Your task to perform on an android device: toggle notifications settings in the gmail app Image 0: 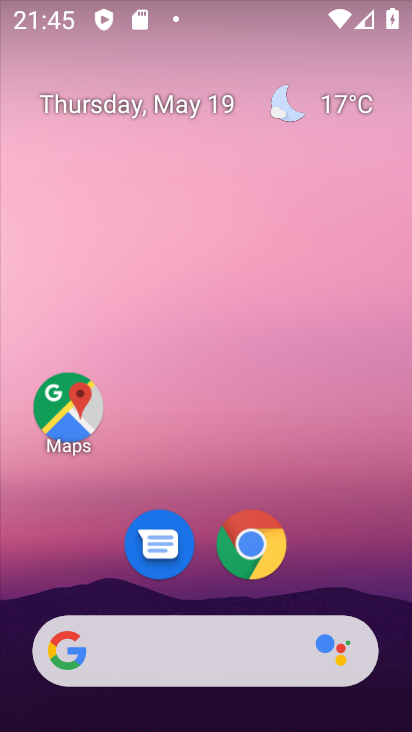
Step 0: drag from (166, 663) to (212, 51)
Your task to perform on an android device: toggle notifications settings in the gmail app Image 1: 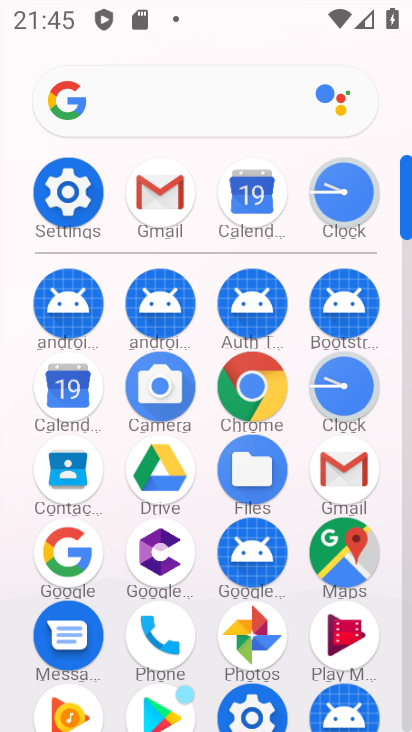
Step 1: click (150, 184)
Your task to perform on an android device: toggle notifications settings in the gmail app Image 2: 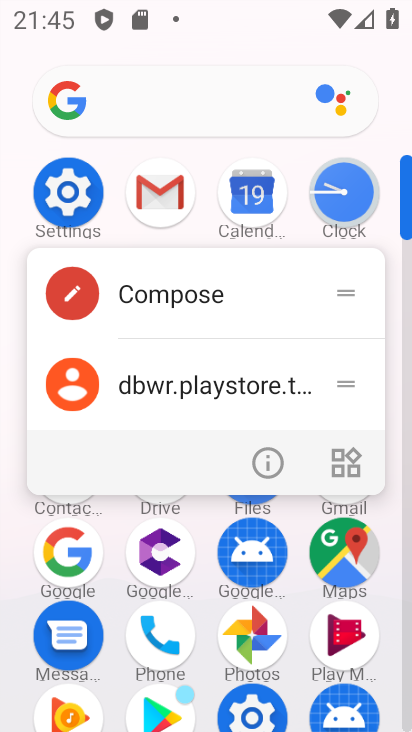
Step 2: click (278, 472)
Your task to perform on an android device: toggle notifications settings in the gmail app Image 3: 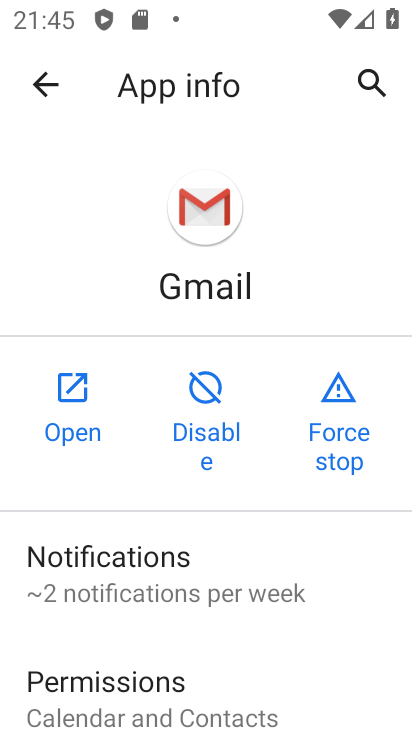
Step 3: click (218, 580)
Your task to perform on an android device: toggle notifications settings in the gmail app Image 4: 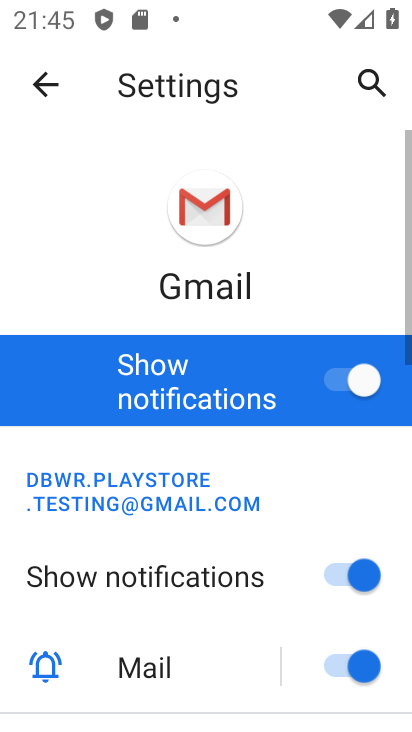
Step 4: click (343, 385)
Your task to perform on an android device: toggle notifications settings in the gmail app Image 5: 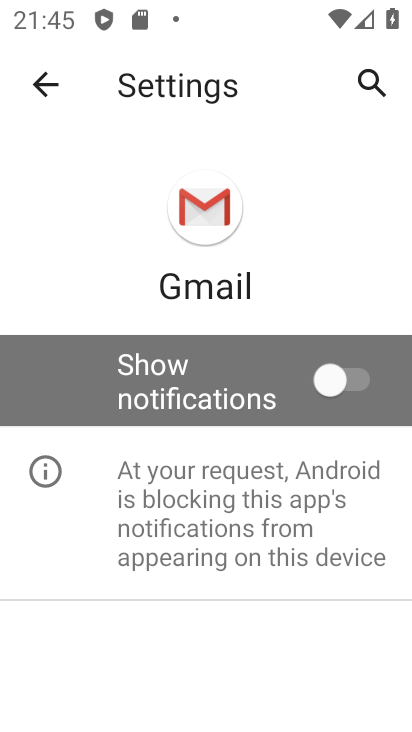
Step 5: task complete